Your task to perform on an android device: Open Maps and search for coffee Image 0: 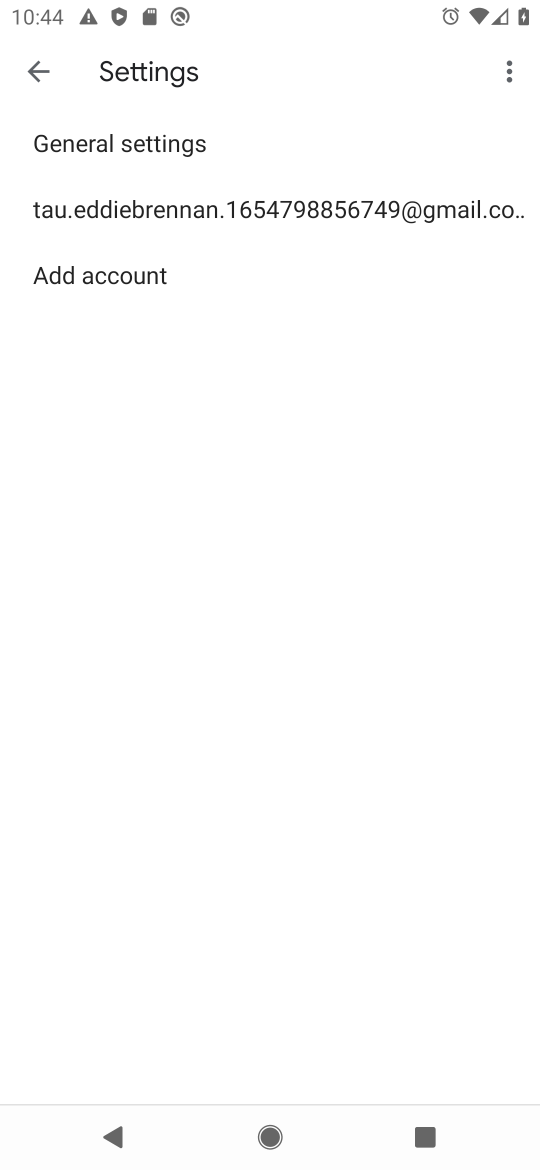
Step 0: press home button
Your task to perform on an android device: Open Maps and search for coffee Image 1: 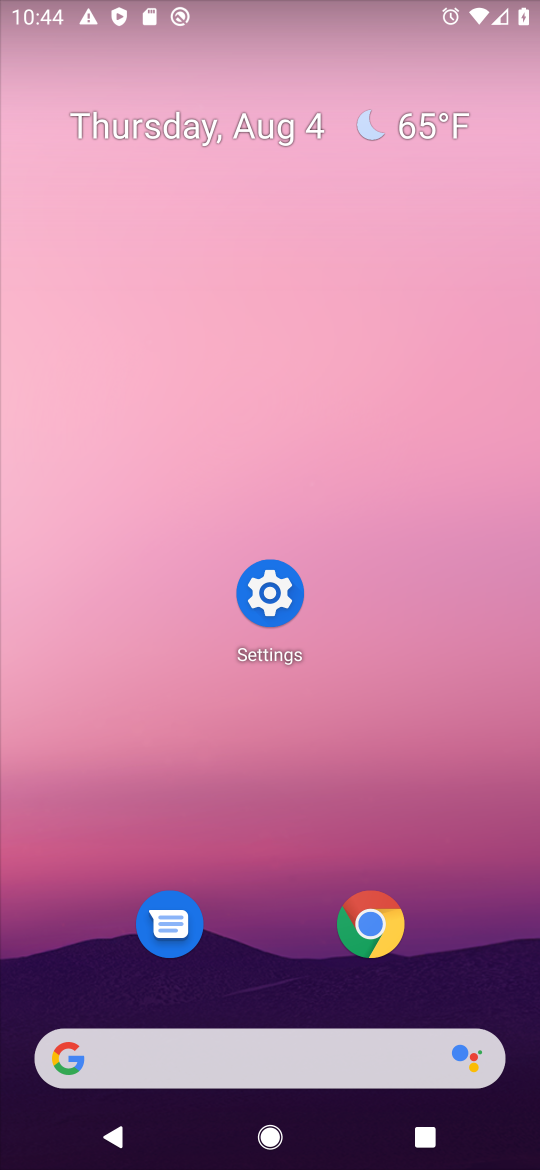
Step 1: drag from (265, 1046) to (426, 72)
Your task to perform on an android device: Open Maps and search for coffee Image 2: 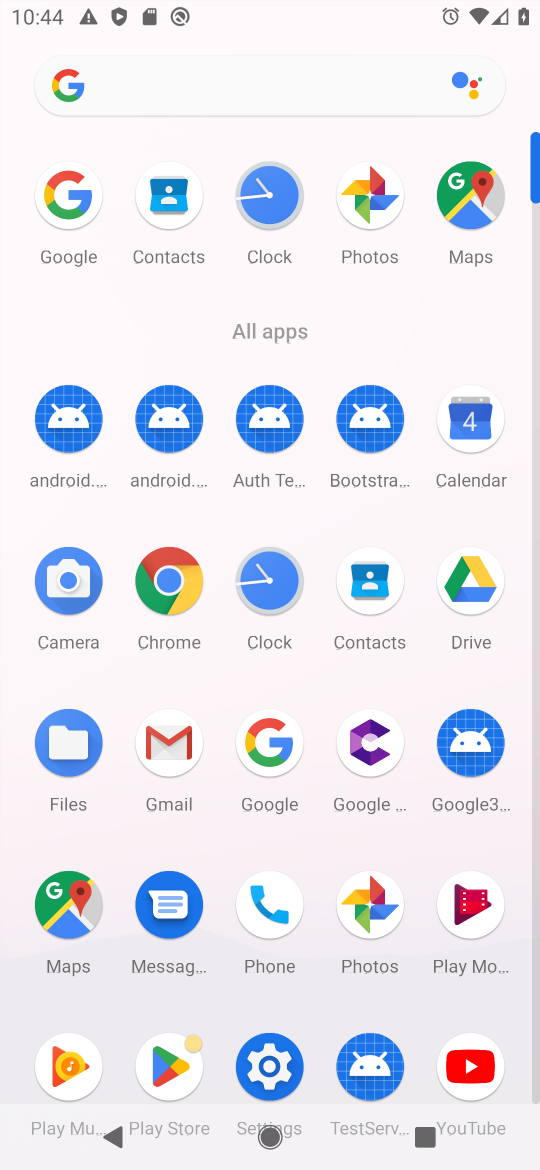
Step 2: drag from (54, 893) to (124, 571)
Your task to perform on an android device: Open Maps and search for coffee Image 3: 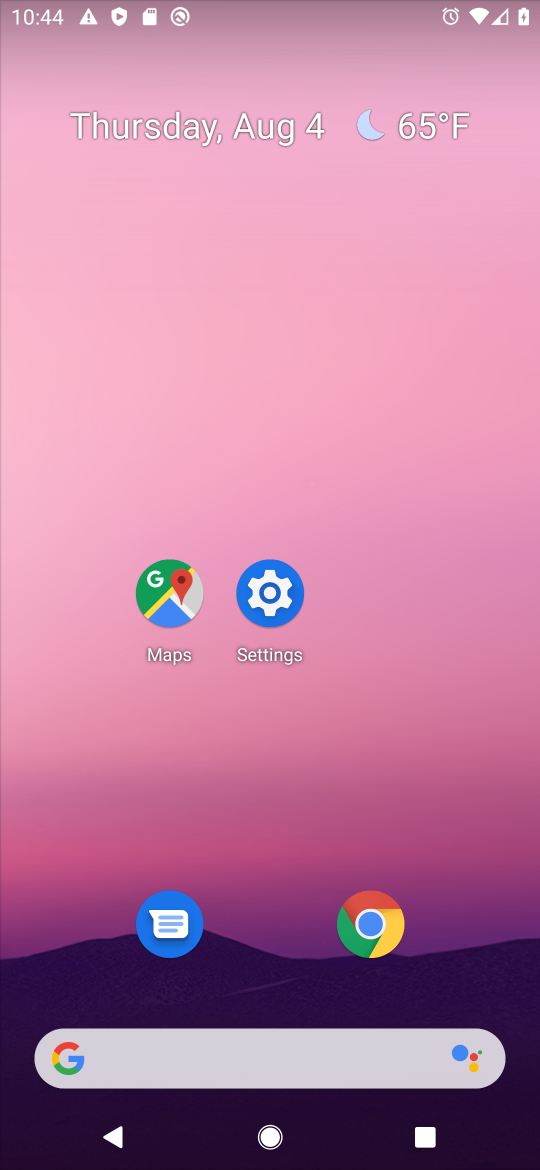
Step 3: click (172, 578)
Your task to perform on an android device: Open Maps and search for coffee Image 4: 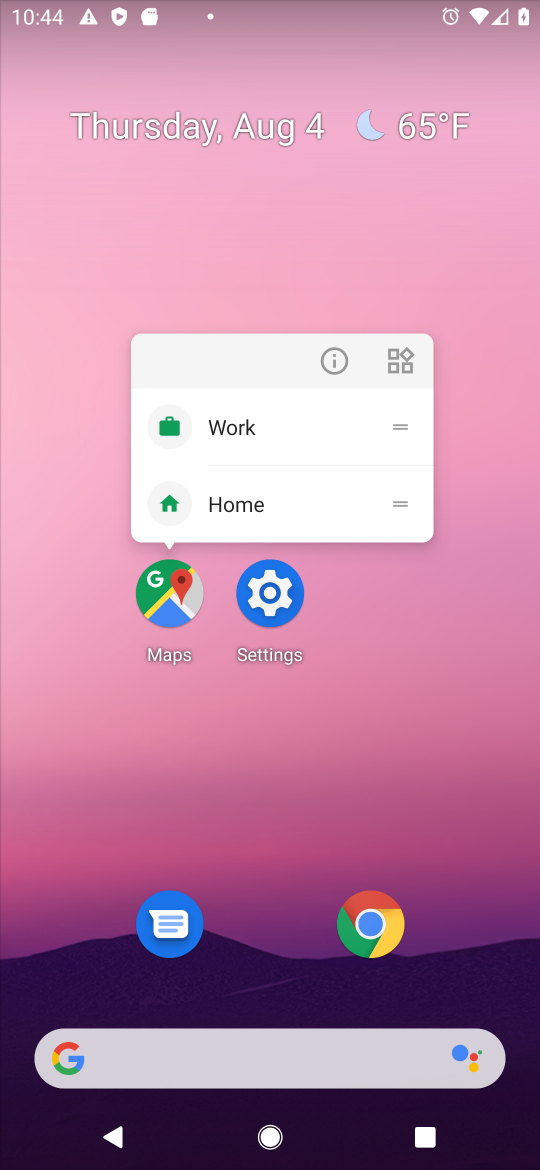
Step 4: click (166, 581)
Your task to perform on an android device: Open Maps and search for coffee Image 5: 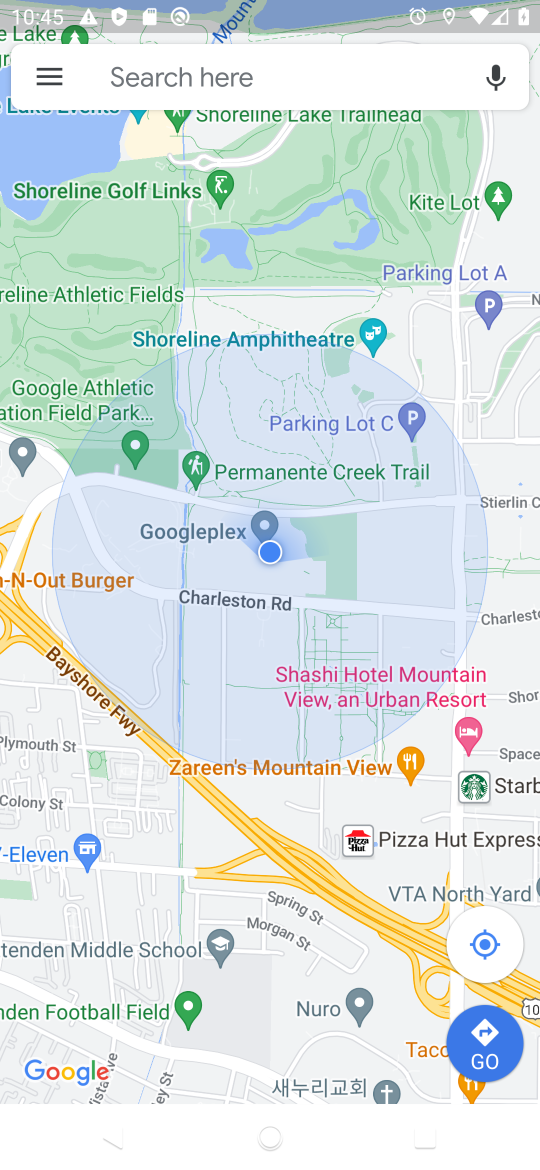
Step 5: click (288, 82)
Your task to perform on an android device: Open Maps and search for coffee Image 6: 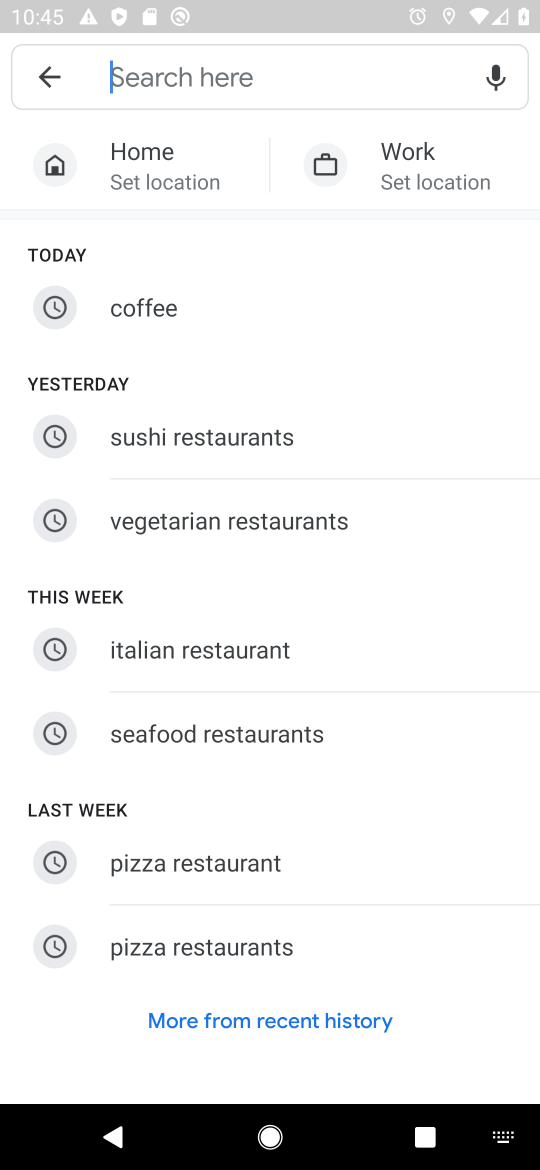
Step 6: click (161, 312)
Your task to perform on an android device: Open Maps and search for coffee Image 7: 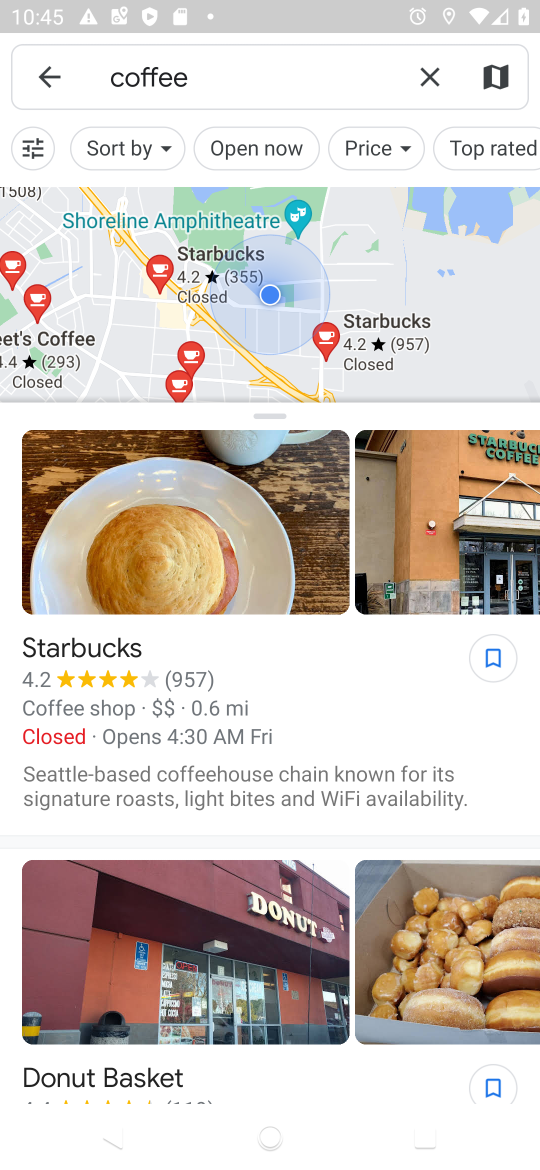
Step 7: task complete